Your task to perform on an android device: Open Yahoo.com Image 0: 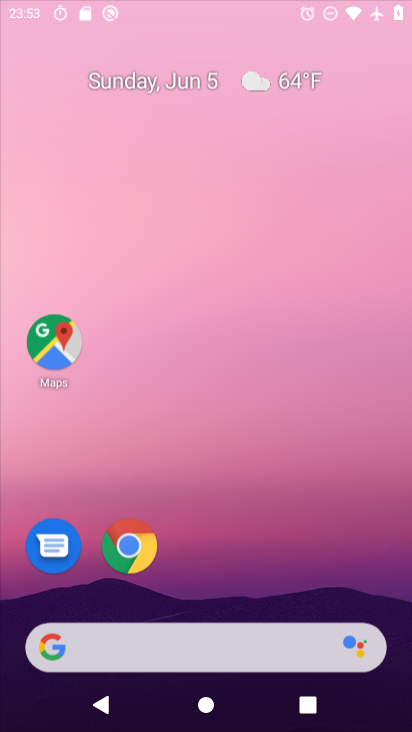
Step 0: click (257, 186)
Your task to perform on an android device: Open Yahoo.com Image 1: 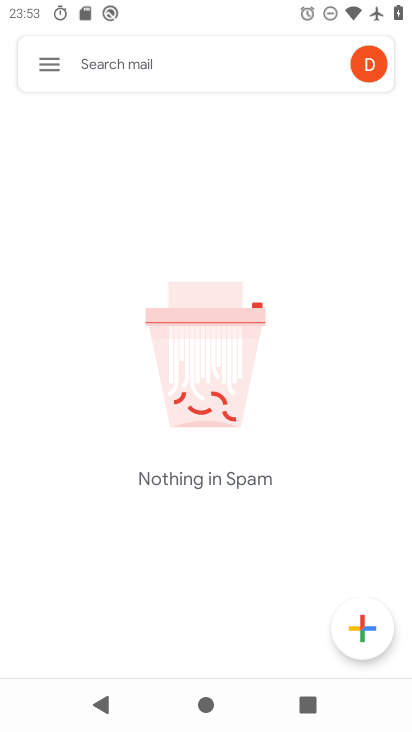
Step 1: drag from (219, 578) to (281, 290)
Your task to perform on an android device: Open Yahoo.com Image 2: 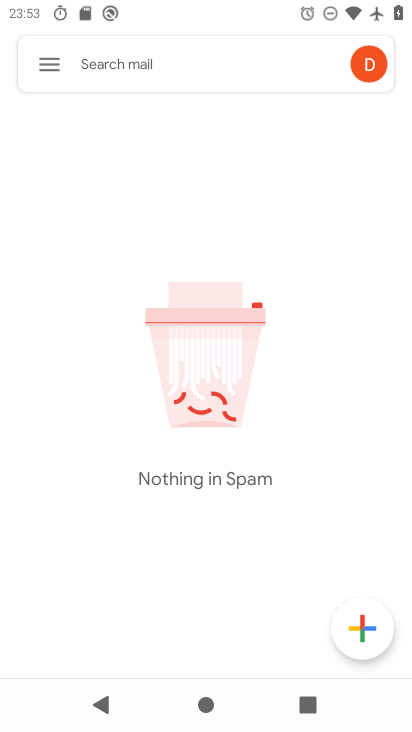
Step 2: press home button
Your task to perform on an android device: Open Yahoo.com Image 3: 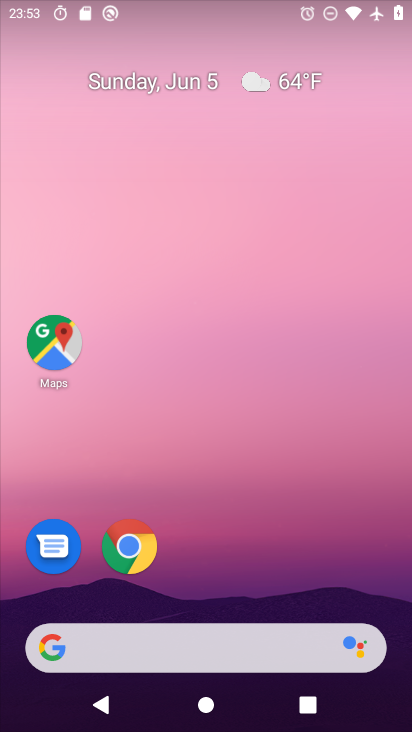
Step 3: drag from (200, 550) to (223, 95)
Your task to perform on an android device: Open Yahoo.com Image 4: 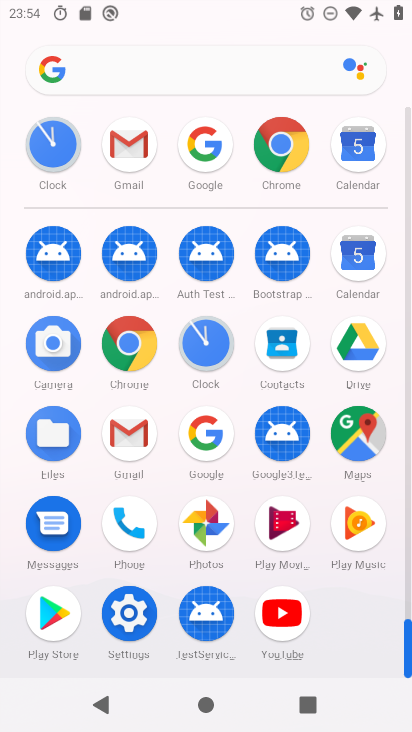
Step 4: click (149, 46)
Your task to perform on an android device: Open Yahoo.com Image 5: 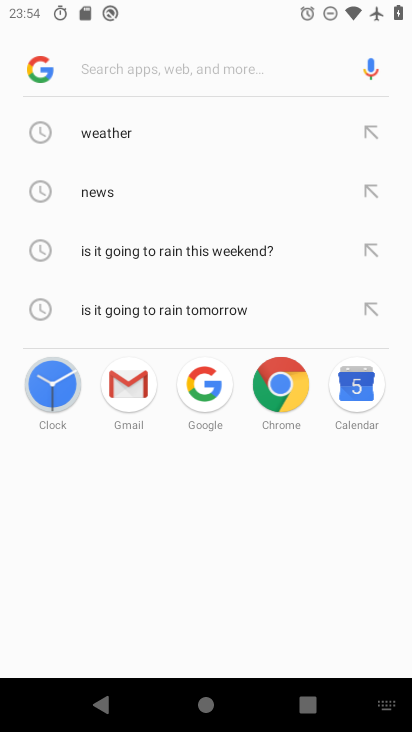
Step 5: type "Yahoo.com"
Your task to perform on an android device: Open Yahoo.com Image 6: 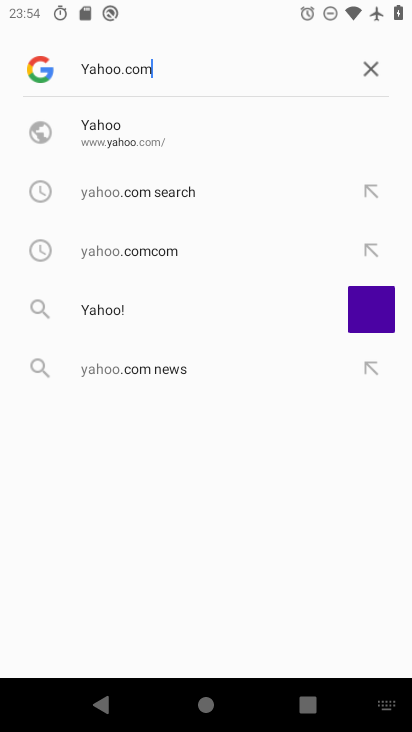
Step 6: type ""
Your task to perform on an android device: Open Yahoo.com Image 7: 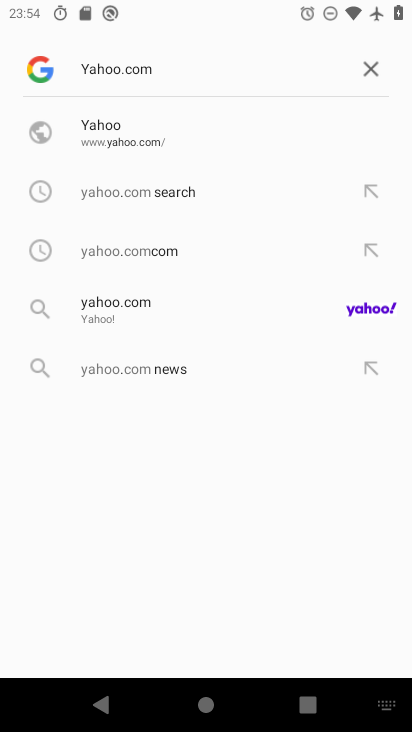
Step 7: click (194, 300)
Your task to perform on an android device: Open Yahoo.com Image 8: 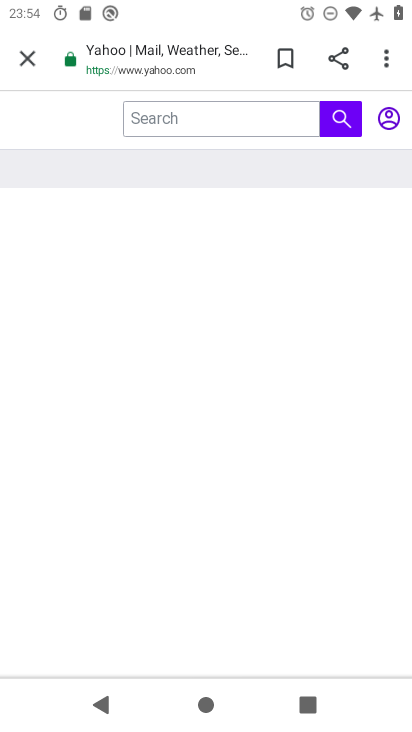
Step 8: task complete